Your task to perform on an android device: Open the Play Movies app and select the watchlist tab. Image 0: 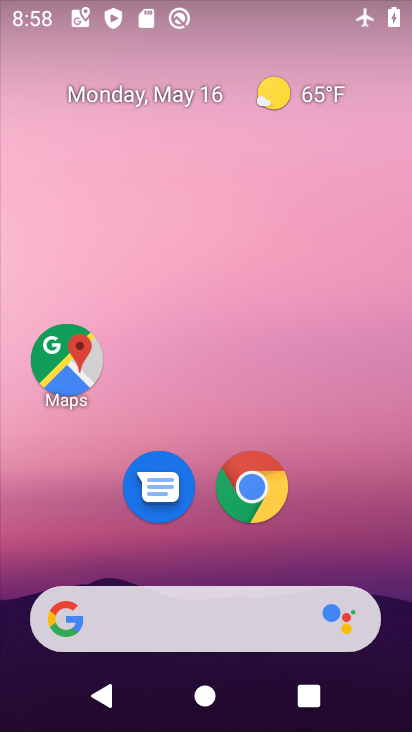
Step 0: drag from (355, 552) to (344, 156)
Your task to perform on an android device: Open the Play Movies app and select the watchlist tab. Image 1: 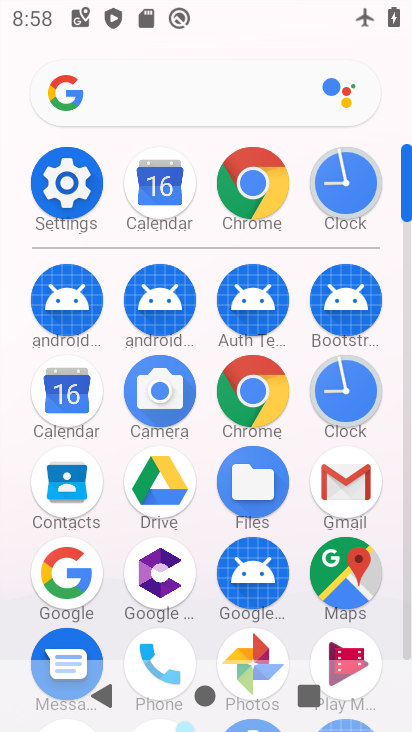
Step 1: drag from (195, 533) to (212, 344)
Your task to perform on an android device: Open the Play Movies app and select the watchlist tab. Image 2: 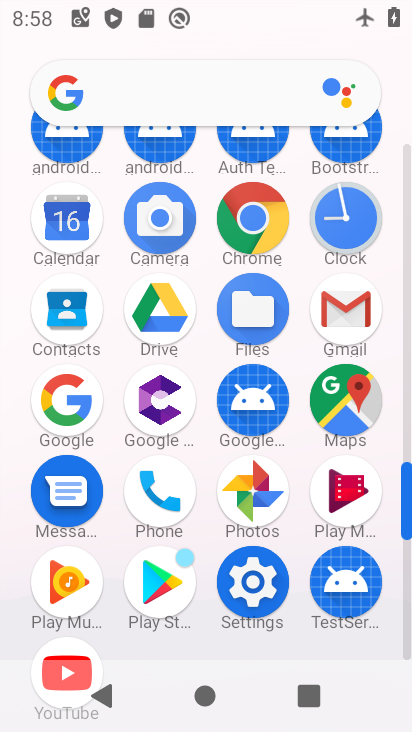
Step 2: click (339, 490)
Your task to perform on an android device: Open the Play Movies app and select the watchlist tab. Image 3: 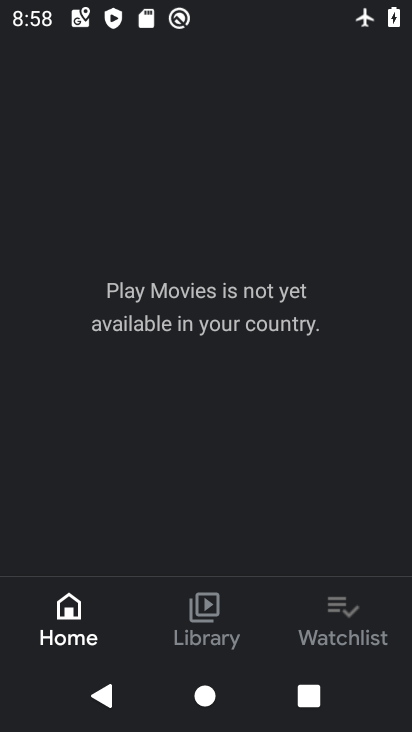
Step 3: click (340, 634)
Your task to perform on an android device: Open the Play Movies app and select the watchlist tab. Image 4: 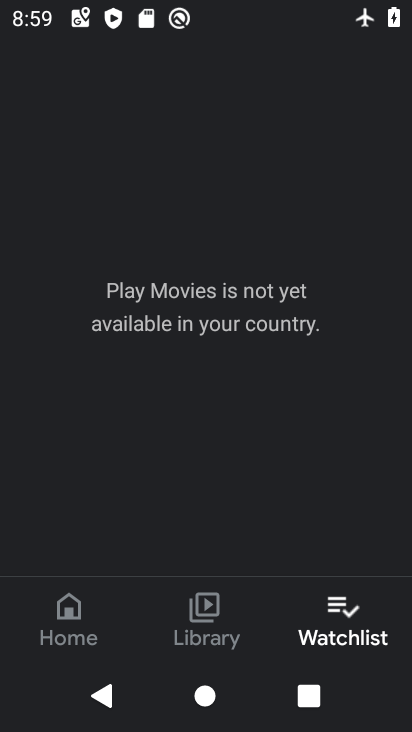
Step 4: task complete